Your task to perform on an android device: open a new tab in the chrome app Image 0: 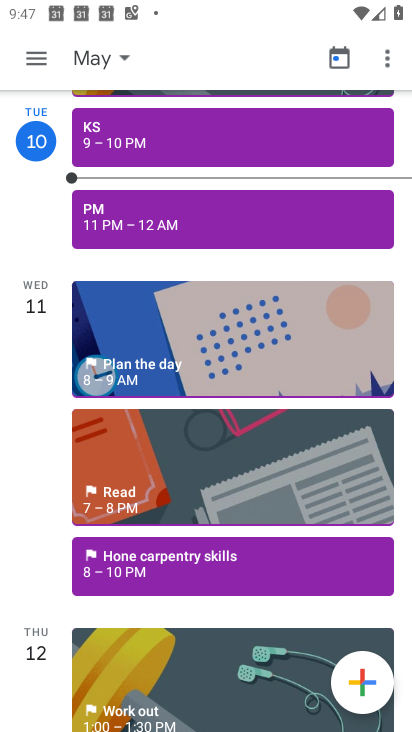
Step 0: press home button
Your task to perform on an android device: open a new tab in the chrome app Image 1: 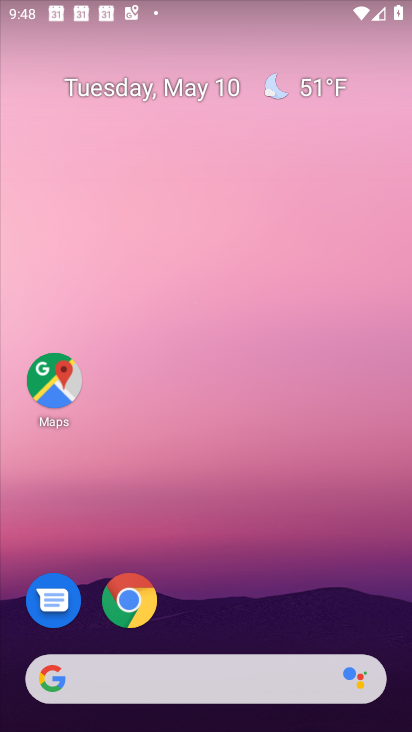
Step 1: click (137, 606)
Your task to perform on an android device: open a new tab in the chrome app Image 2: 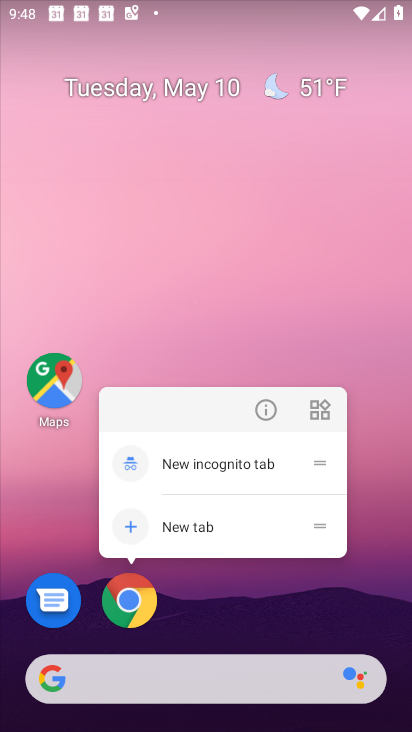
Step 2: click (207, 528)
Your task to perform on an android device: open a new tab in the chrome app Image 3: 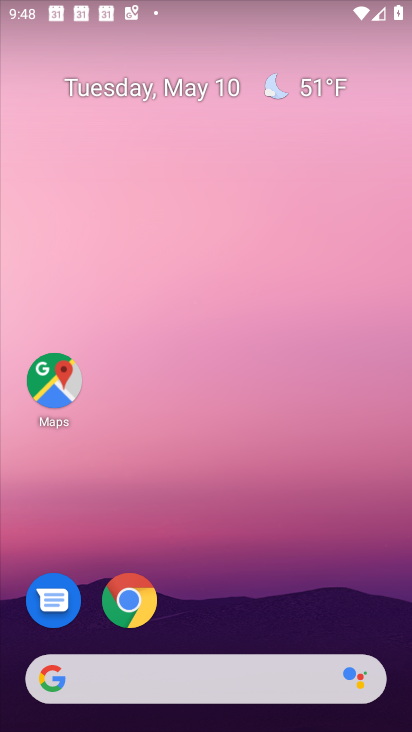
Step 3: click (131, 591)
Your task to perform on an android device: open a new tab in the chrome app Image 4: 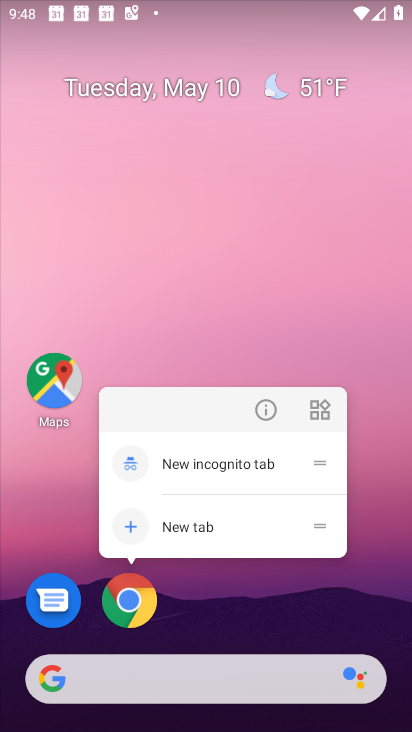
Step 4: click (131, 591)
Your task to perform on an android device: open a new tab in the chrome app Image 5: 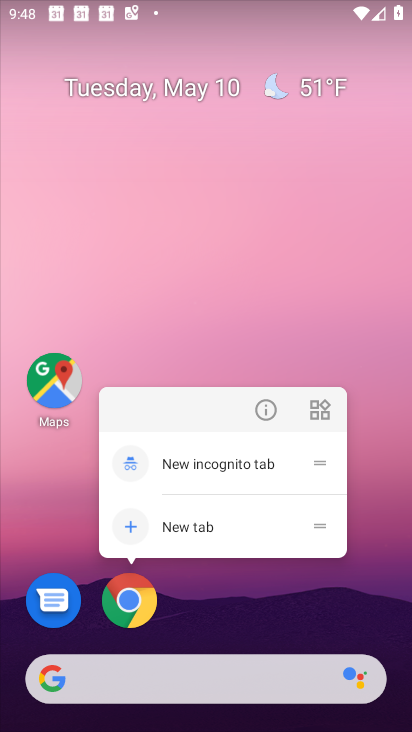
Step 5: click (200, 523)
Your task to perform on an android device: open a new tab in the chrome app Image 6: 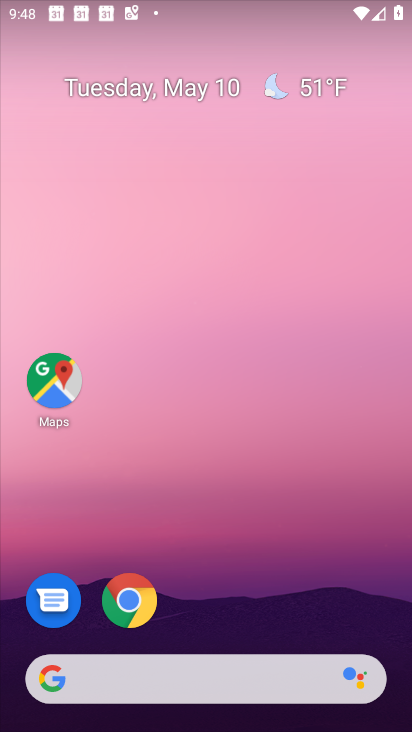
Step 6: click (130, 605)
Your task to perform on an android device: open a new tab in the chrome app Image 7: 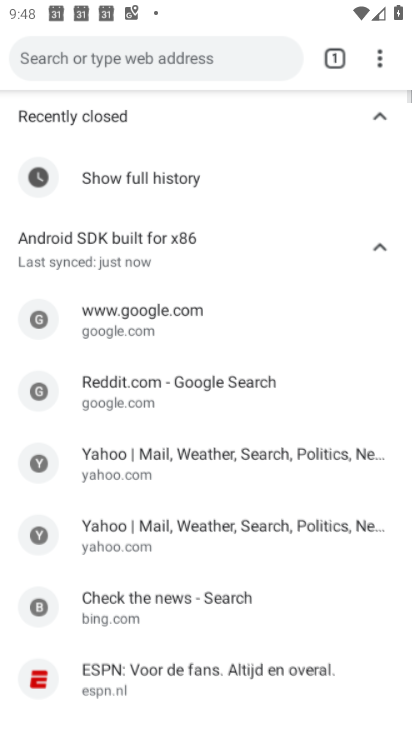
Step 7: drag from (137, 603) to (241, 158)
Your task to perform on an android device: open a new tab in the chrome app Image 8: 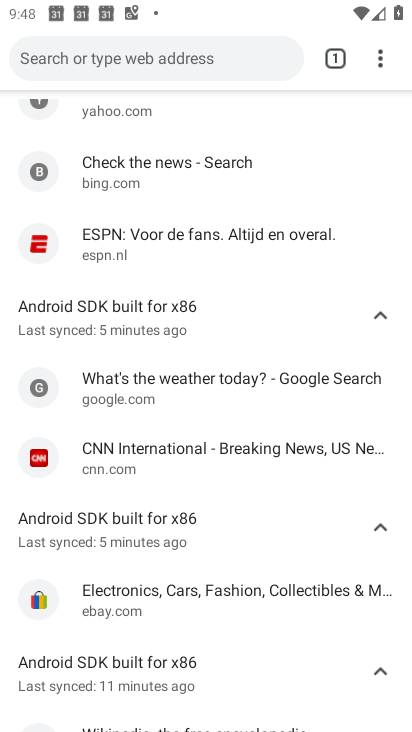
Step 8: drag from (247, 151) to (290, 613)
Your task to perform on an android device: open a new tab in the chrome app Image 9: 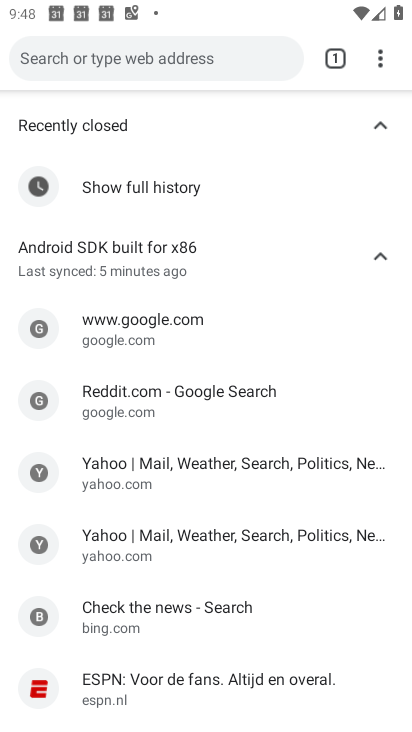
Step 9: click (377, 58)
Your task to perform on an android device: open a new tab in the chrome app Image 10: 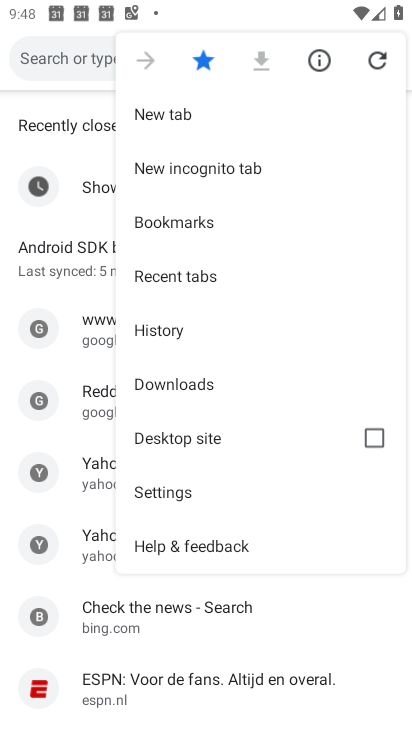
Step 10: click (196, 115)
Your task to perform on an android device: open a new tab in the chrome app Image 11: 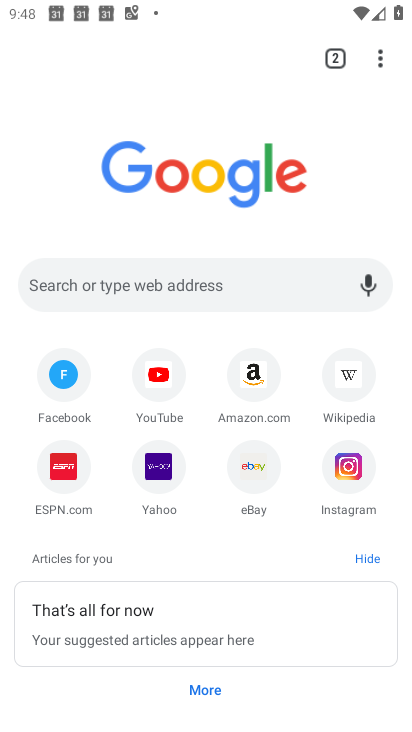
Step 11: task complete